Your task to perform on an android device: add a label to a message in the gmail app Image 0: 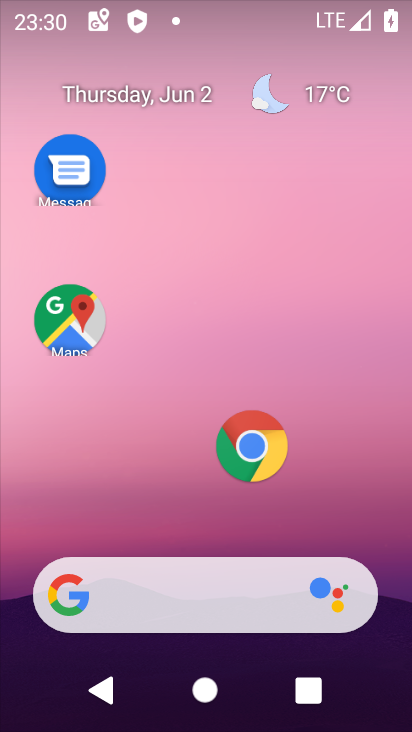
Step 0: drag from (344, 497) to (347, 75)
Your task to perform on an android device: add a label to a message in the gmail app Image 1: 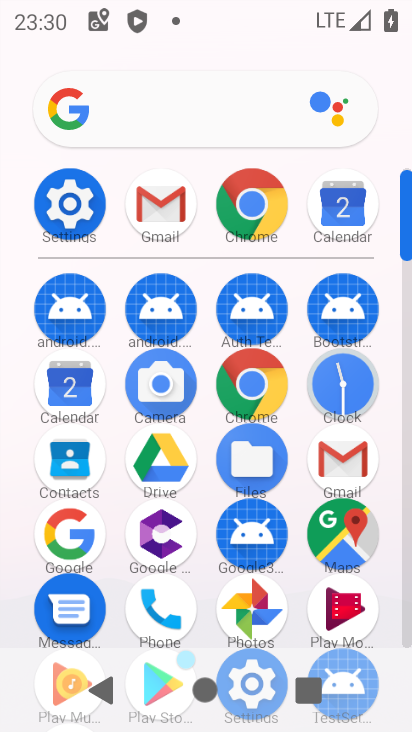
Step 1: click (151, 206)
Your task to perform on an android device: add a label to a message in the gmail app Image 2: 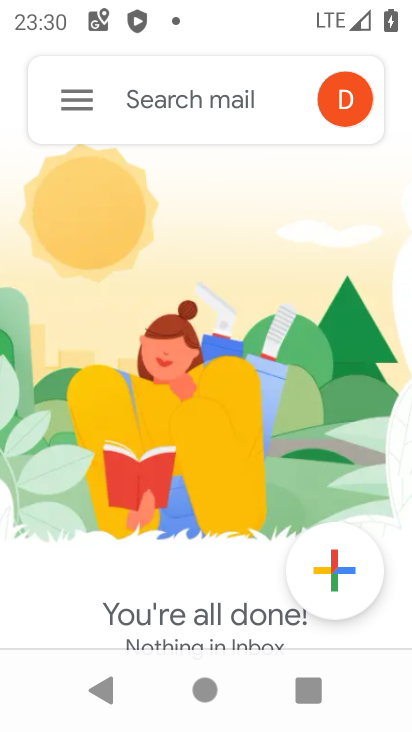
Step 2: click (71, 100)
Your task to perform on an android device: add a label to a message in the gmail app Image 3: 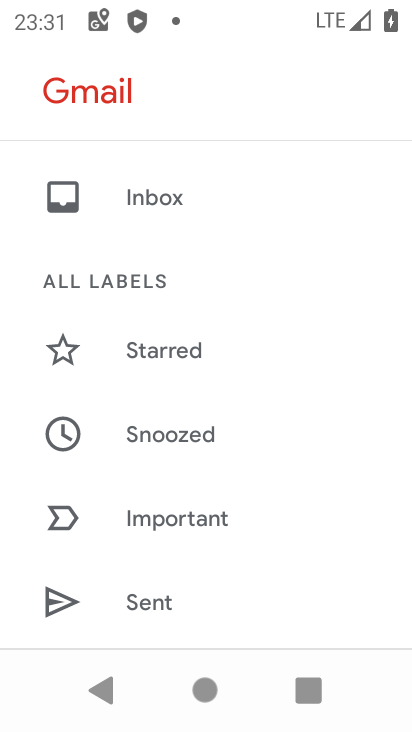
Step 3: task complete